Your task to perform on an android device: Search for Mexican restaurants on Maps Image 0: 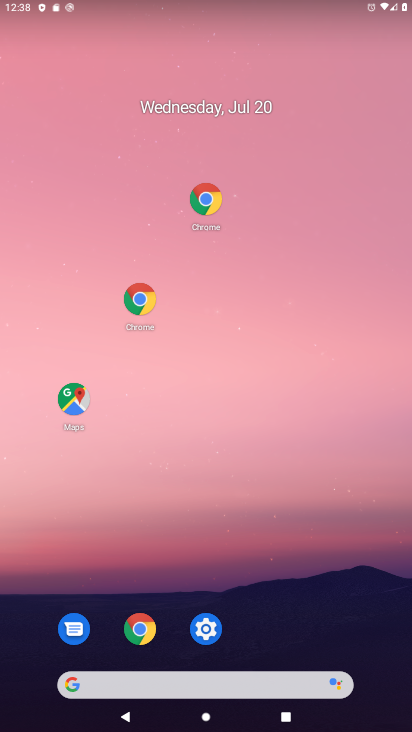
Step 0: drag from (290, 562) to (225, 125)
Your task to perform on an android device: Search for Mexican restaurants on Maps Image 1: 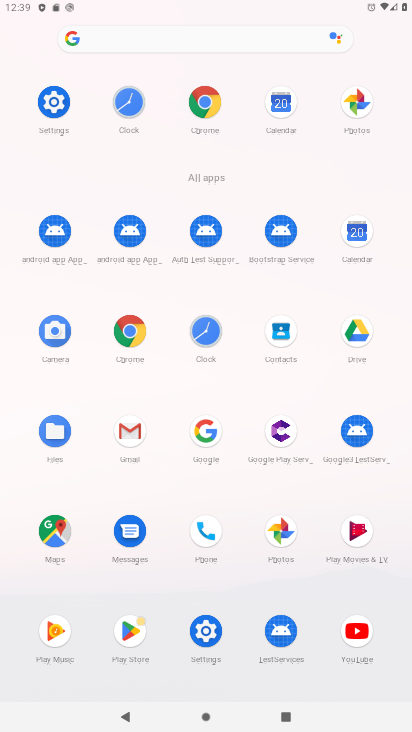
Step 1: click (54, 530)
Your task to perform on an android device: Search for Mexican restaurants on Maps Image 2: 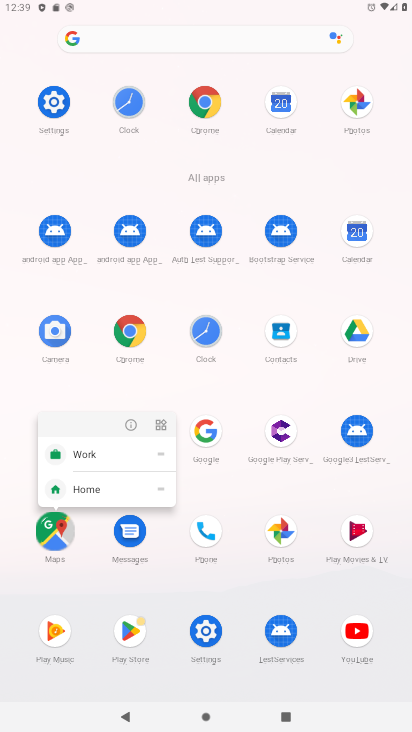
Step 2: click (55, 529)
Your task to perform on an android device: Search for Mexican restaurants on Maps Image 3: 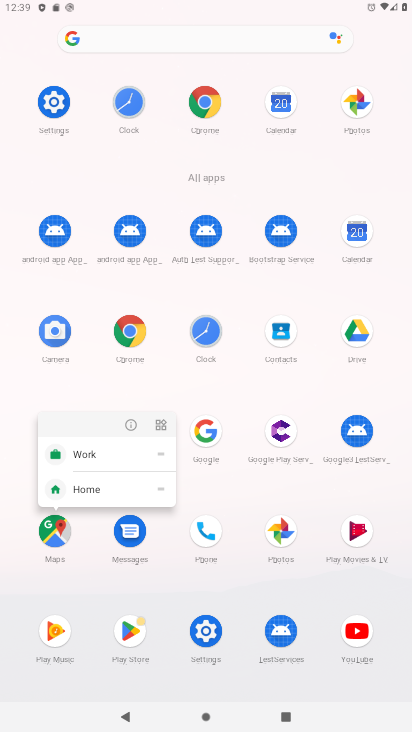
Step 3: click (55, 524)
Your task to perform on an android device: Search for Mexican restaurants on Maps Image 4: 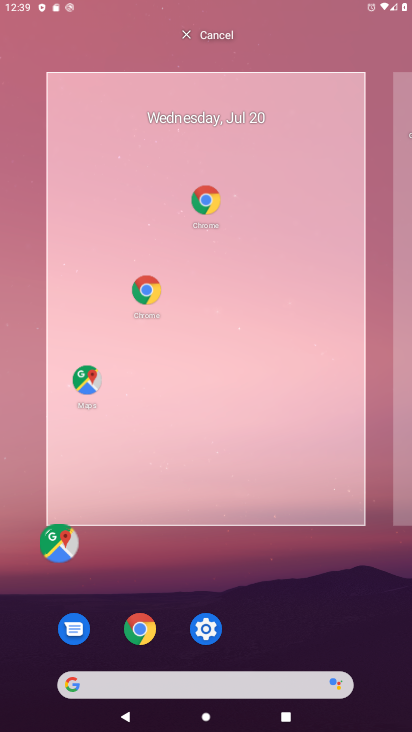
Step 4: click (59, 535)
Your task to perform on an android device: Search for Mexican restaurants on Maps Image 5: 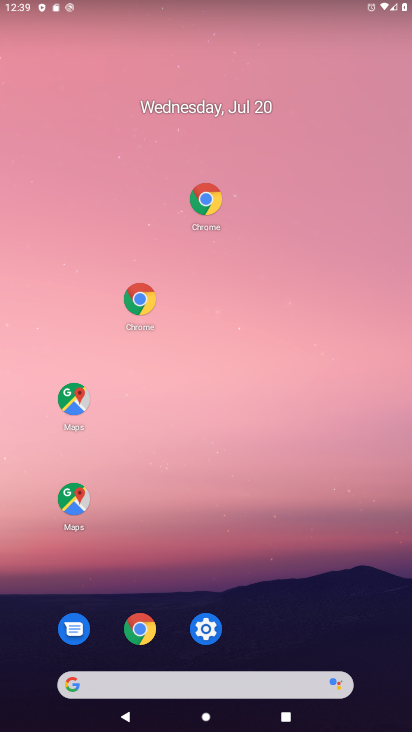
Step 5: drag from (260, 559) to (161, 15)
Your task to perform on an android device: Search for Mexican restaurants on Maps Image 6: 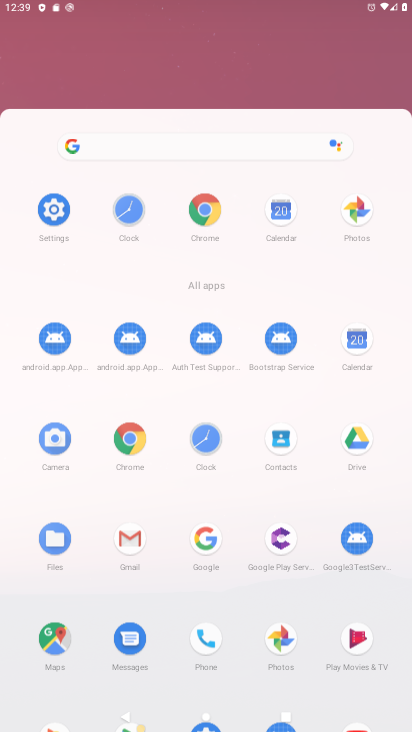
Step 6: drag from (266, 523) to (192, 68)
Your task to perform on an android device: Search for Mexican restaurants on Maps Image 7: 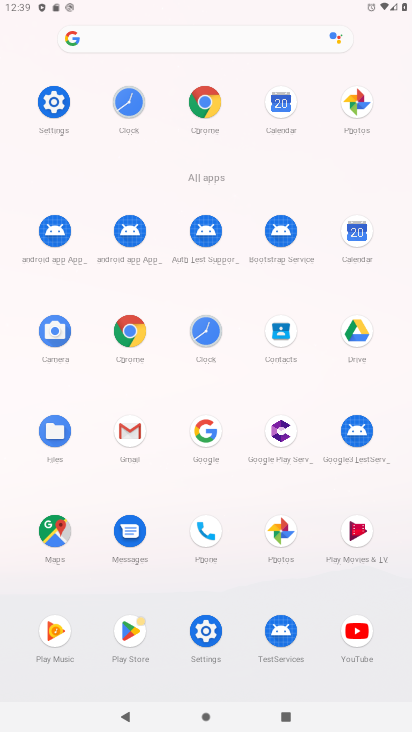
Step 7: click (56, 525)
Your task to perform on an android device: Search for Mexican restaurants on Maps Image 8: 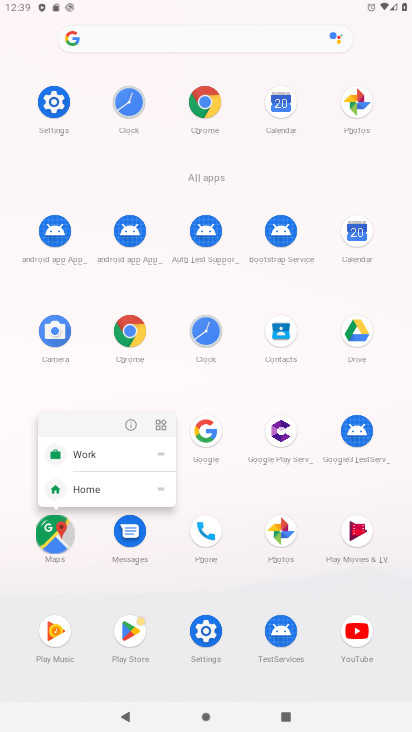
Step 8: click (56, 528)
Your task to perform on an android device: Search for Mexican restaurants on Maps Image 9: 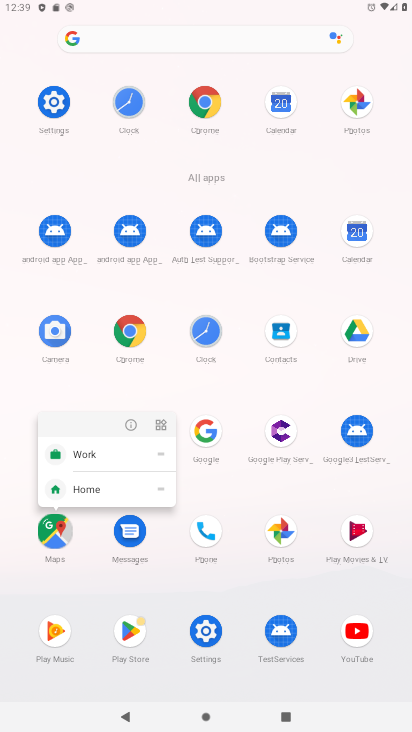
Step 9: click (56, 528)
Your task to perform on an android device: Search for Mexican restaurants on Maps Image 10: 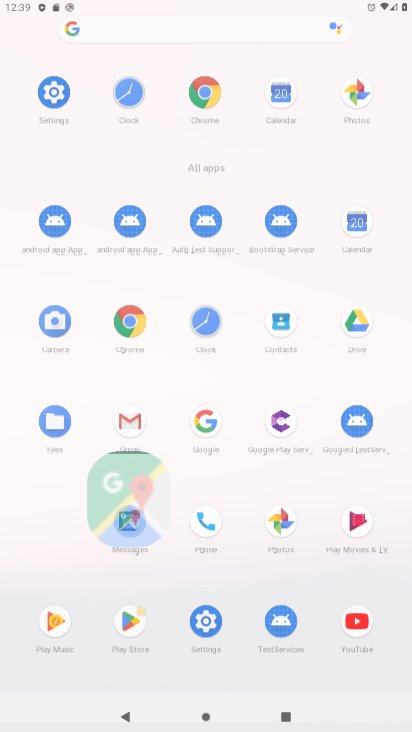
Step 10: click (55, 529)
Your task to perform on an android device: Search for Mexican restaurants on Maps Image 11: 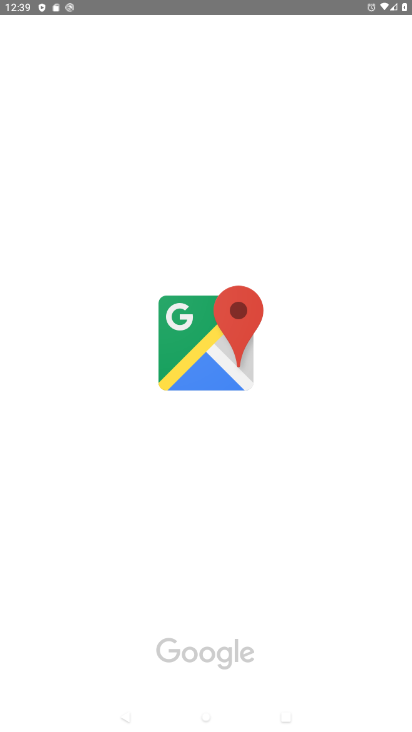
Step 11: click (57, 520)
Your task to perform on an android device: Search for Mexican restaurants on Maps Image 12: 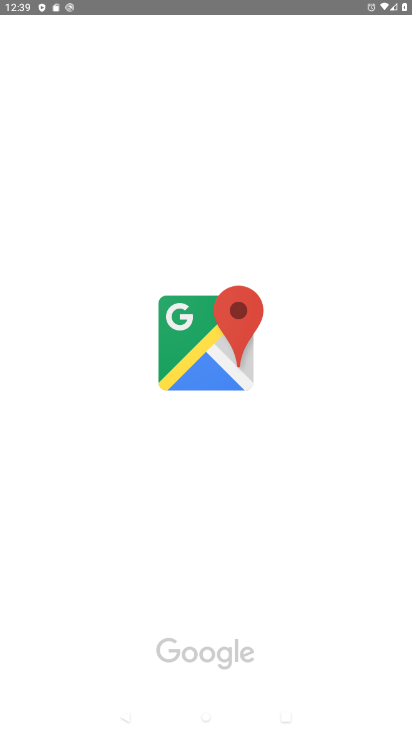
Step 12: click (59, 528)
Your task to perform on an android device: Search for Mexican restaurants on Maps Image 13: 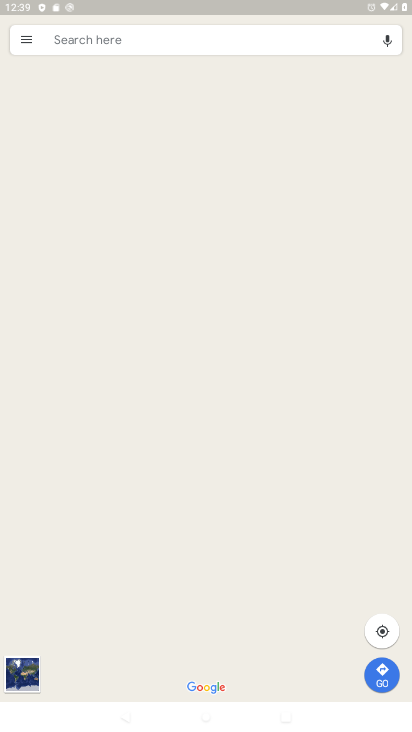
Step 13: click (90, 35)
Your task to perform on an android device: Search for Mexican restaurants on Maps Image 14: 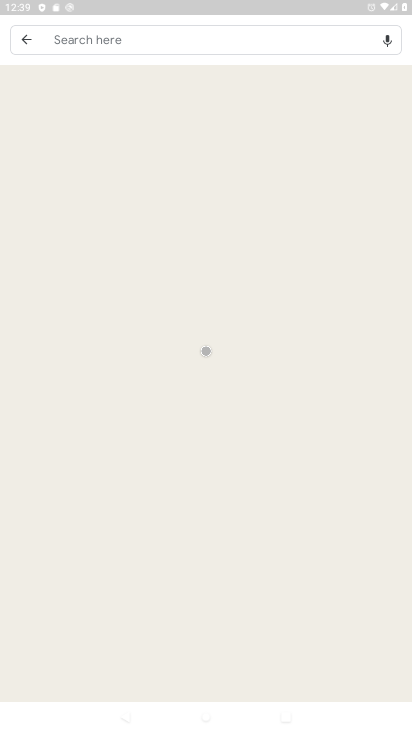
Step 14: click (90, 35)
Your task to perform on an android device: Search for Mexican restaurants on Maps Image 15: 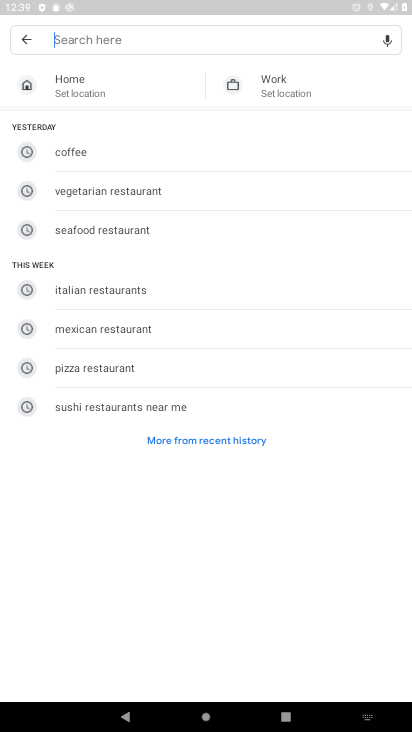
Step 15: type "mexican restaurants"
Your task to perform on an android device: Search for Mexican restaurants on Maps Image 16: 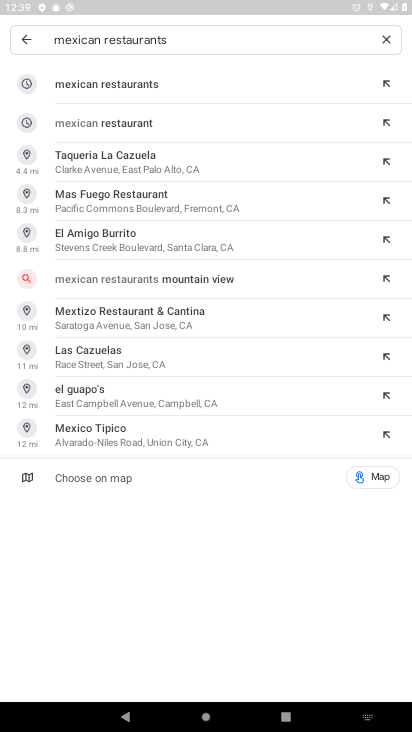
Step 16: click (151, 88)
Your task to perform on an android device: Search for Mexican restaurants on Maps Image 17: 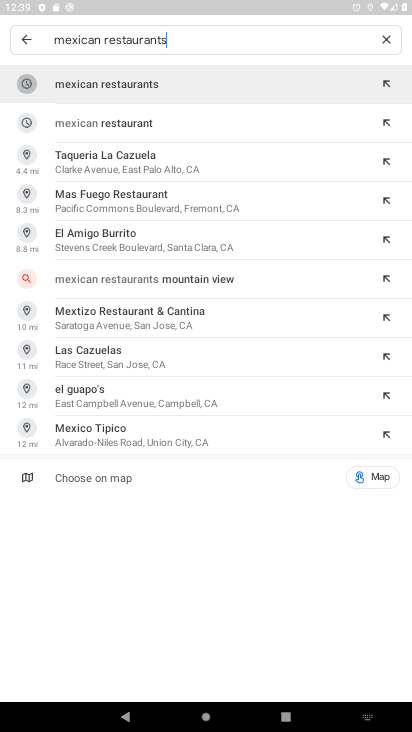
Step 17: click (146, 85)
Your task to perform on an android device: Search for Mexican restaurants on Maps Image 18: 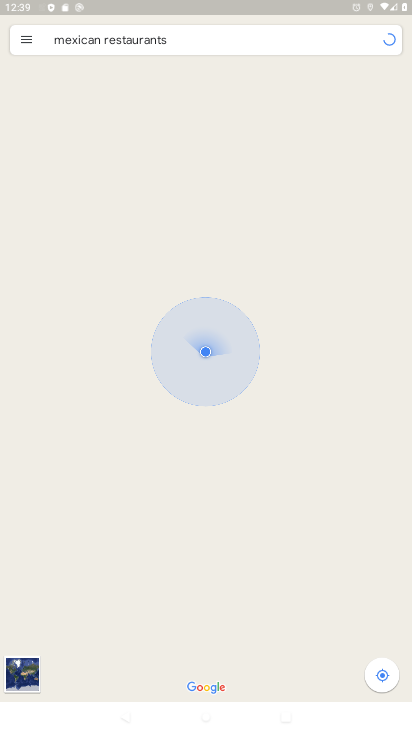
Step 18: task complete